Your task to perform on an android device: Show me recent news Image 0: 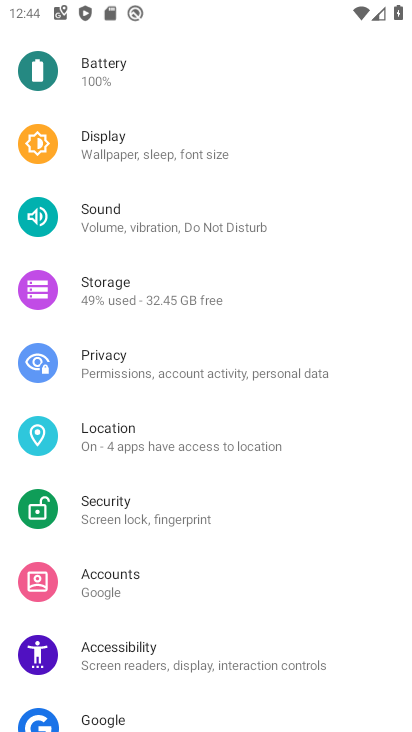
Step 0: press home button
Your task to perform on an android device: Show me recent news Image 1: 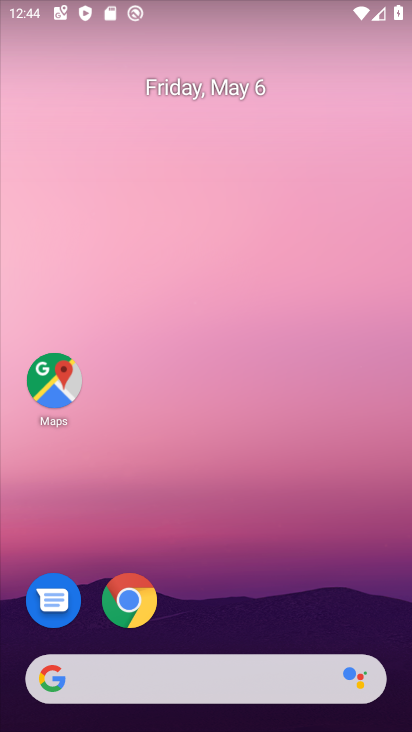
Step 1: drag from (241, 616) to (190, 61)
Your task to perform on an android device: Show me recent news Image 2: 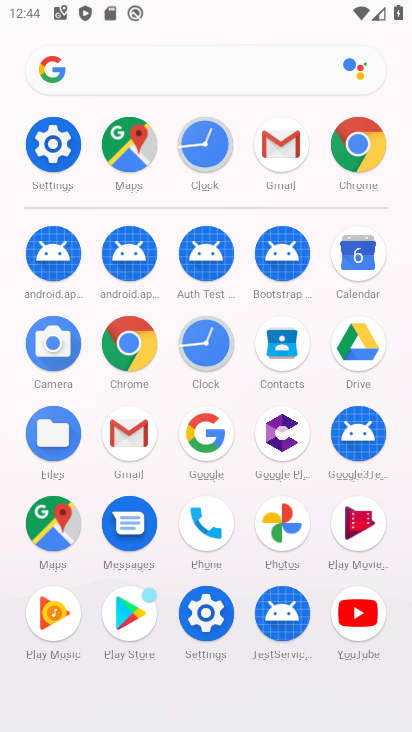
Step 2: click (133, 357)
Your task to perform on an android device: Show me recent news Image 3: 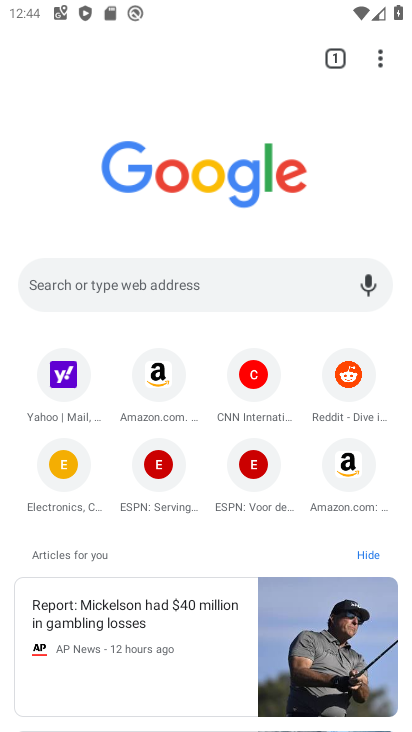
Step 3: click (151, 612)
Your task to perform on an android device: Show me recent news Image 4: 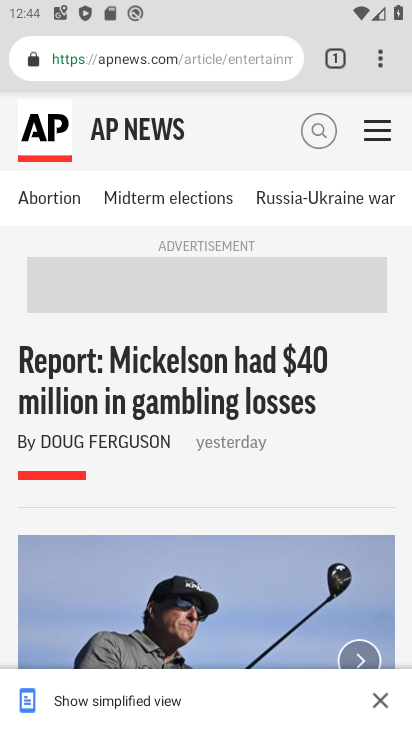
Step 4: task complete